Your task to perform on an android device: turn notification dots off Image 0: 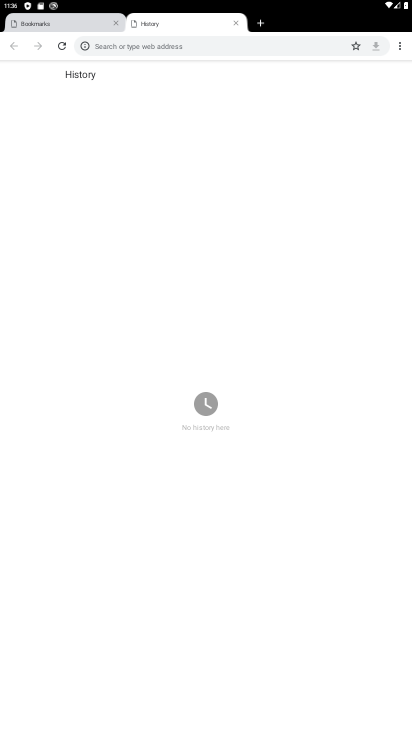
Step 0: press home button
Your task to perform on an android device: turn notification dots off Image 1: 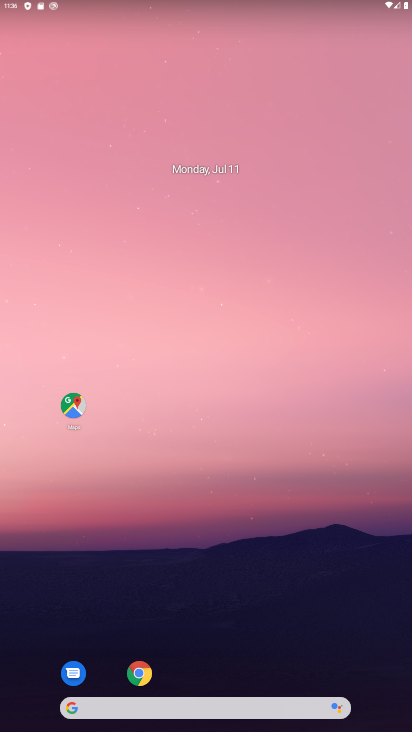
Step 1: drag from (218, 627) to (242, 60)
Your task to perform on an android device: turn notification dots off Image 2: 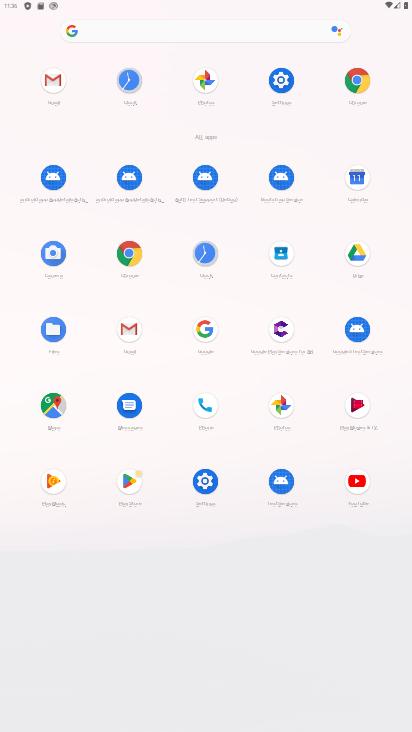
Step 2: click (282, 73)
Your task to perform on an android device: turn notification dots off Image 3: 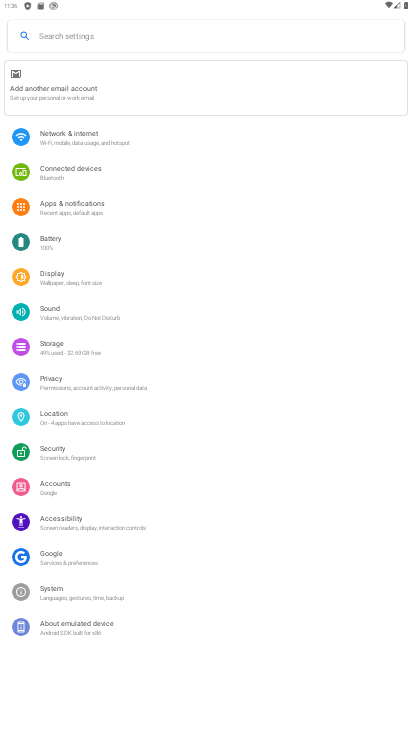
Step 3: click (113, 203)
Your task to perform on an android device: turn notification dots off Image 4: 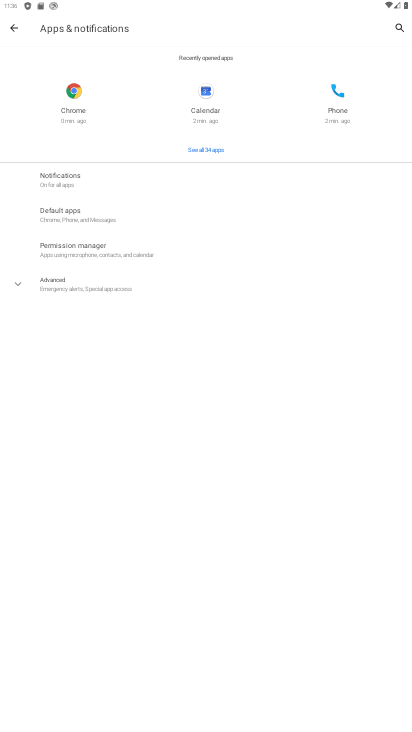
Step 4: click (89, 179)
Your task to perform on an android device: turn notification dots off Image 5: 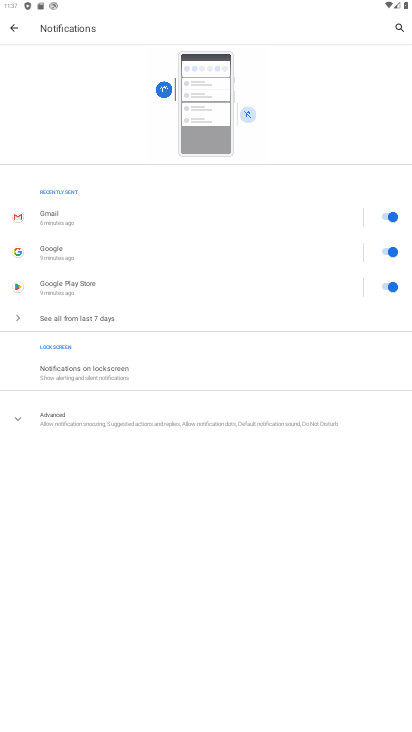
Step 5: click (57, 414)
Your task to perform on an android device: turn notification dots off Image 6: 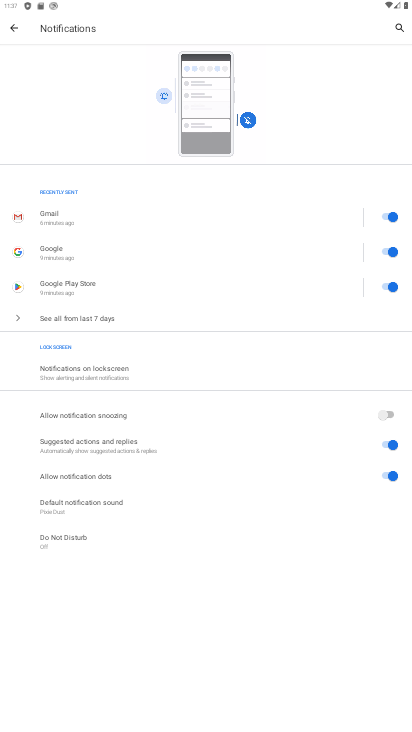
Step 6: click (388, 469)
Your task to perform on an android device: turn notification dots off Image 7: 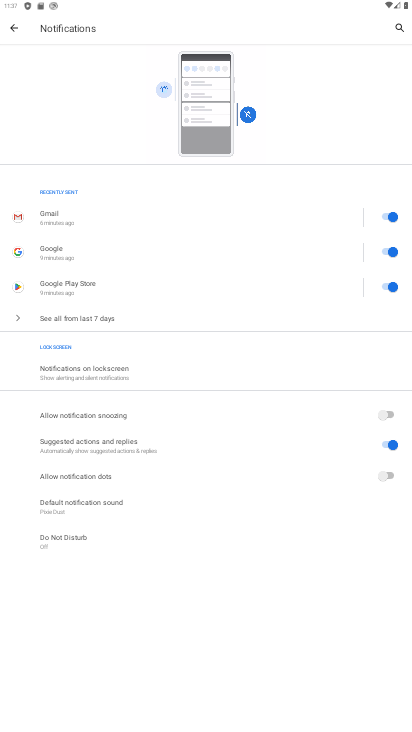
Step 7: task complete